Your task to perform on an android device: delete browsing data in the chrome app Image 0: 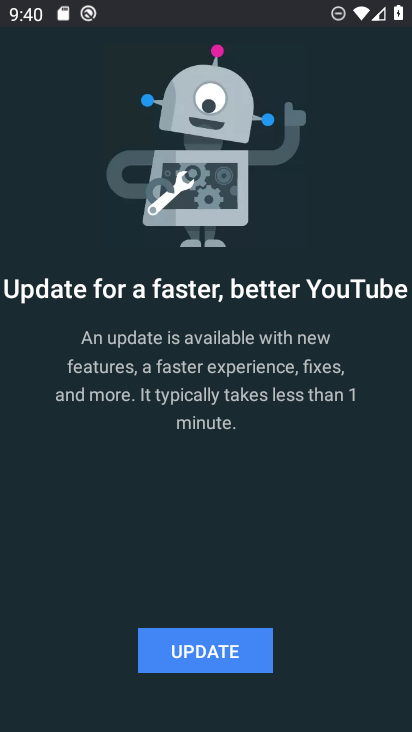
Step 0: press home button
Your task to perform on an android device: delete browsing data in the chrome app Image 1: 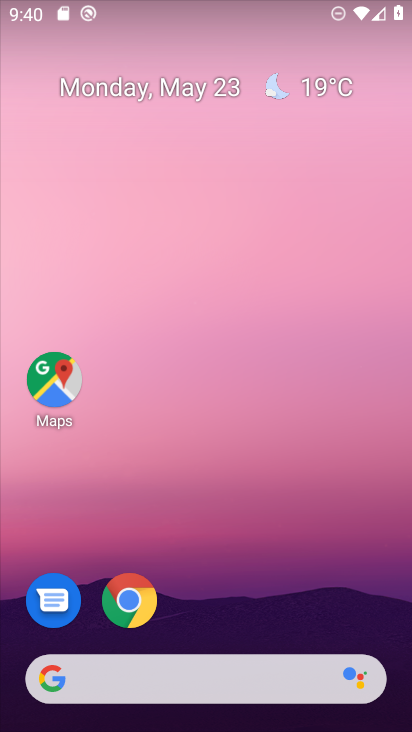
Step 1: click (127, 601)
Your task to perform on an android device: delete browsing data in the chrome app Image 2: 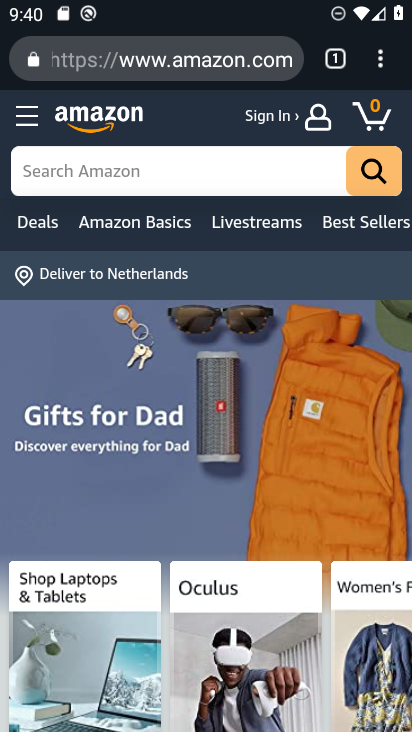
Step 2: click (384, 56)
Your task to perform on an android device: delete browsing data in the chrome app Image 3: 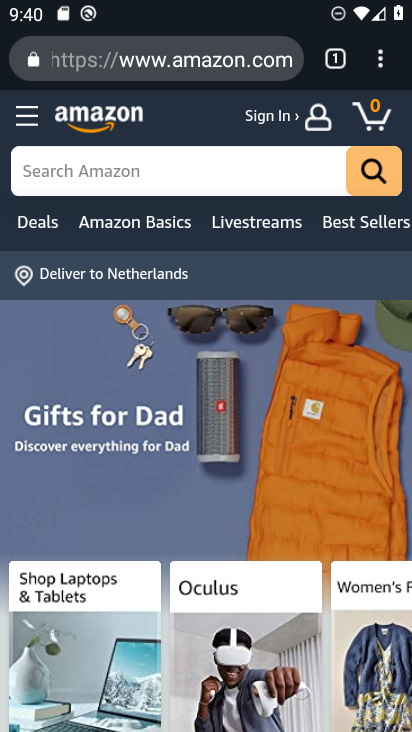
Step 3: click (374, 67)
Your task to perform on an android device: delete browsing data in the chrome app Image 4: 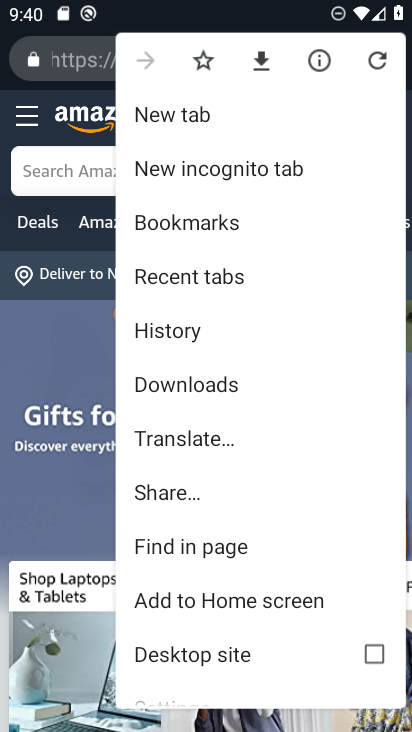
Step 4: drag from (206, 678) to (307, 90)
Your task to perform on an android device: delete browsing data in the chrome app Image 5: 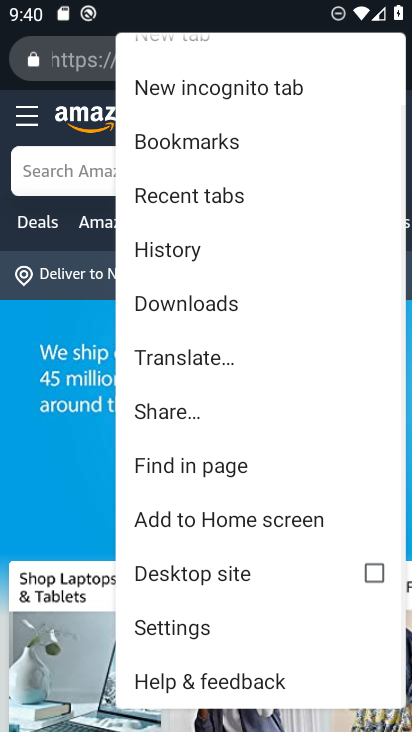
Step 5: click (176, 627)
Your task to perform on an android device: delete browsing data in the chrome app Image 6: 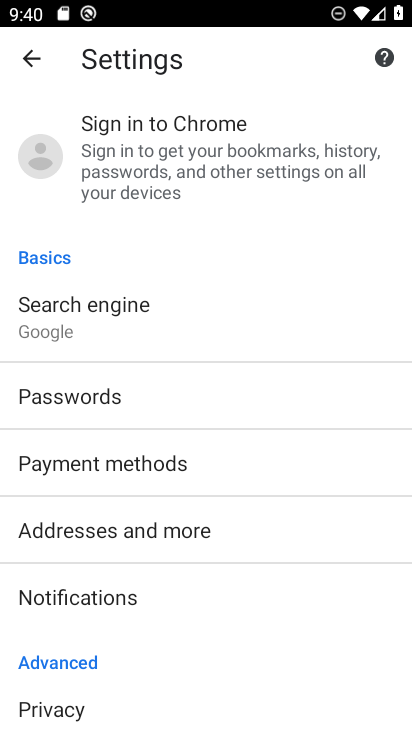
Step 6: drag from (0, 581) to (179, 229)
Your task to perform on an android device: delete browsing data in the chrome app Image 7: 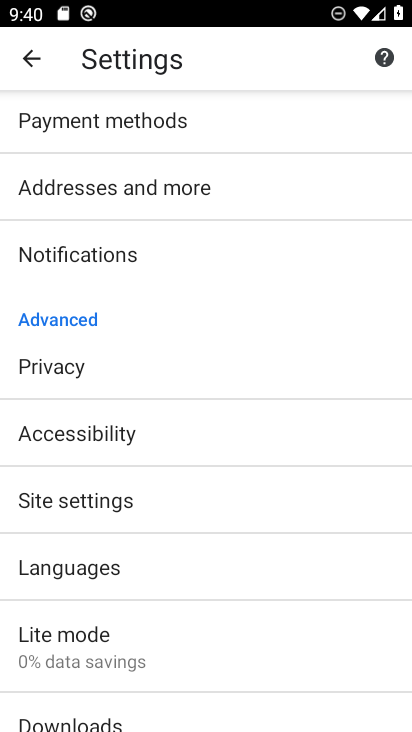
Step 7: drag from (255, 185) to (284, 725)
Your task to perform on an android device: delete browsing data in the chrome app Image 8: 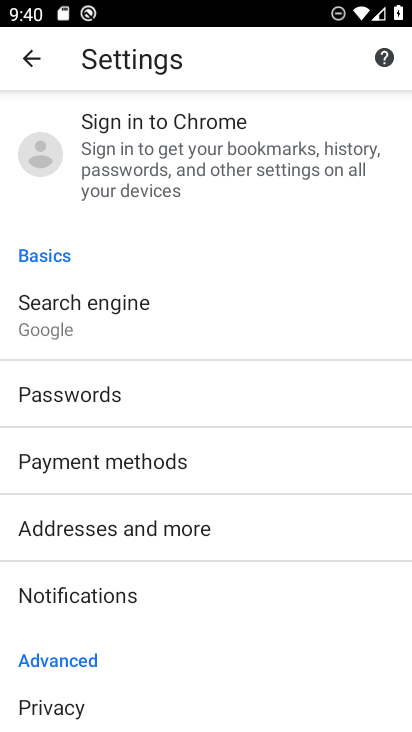
Step 8: press back button
Your task to perform on an android device: delete browsing data in the chrome app Image 9: 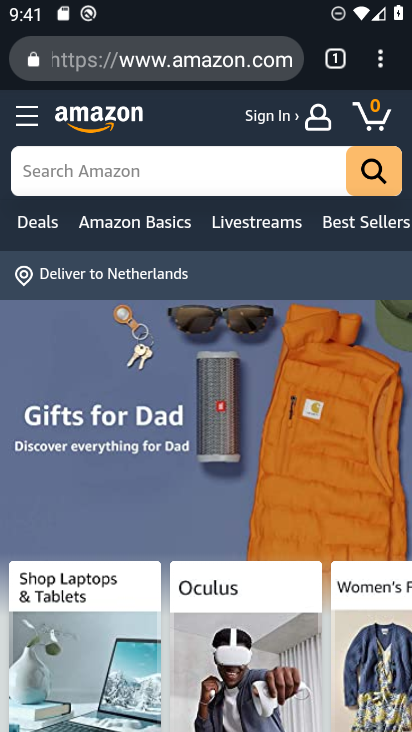
Step 9: click (371, 71)
Your task to perform on an android device: delete browsing data in the chrome app Image 10: 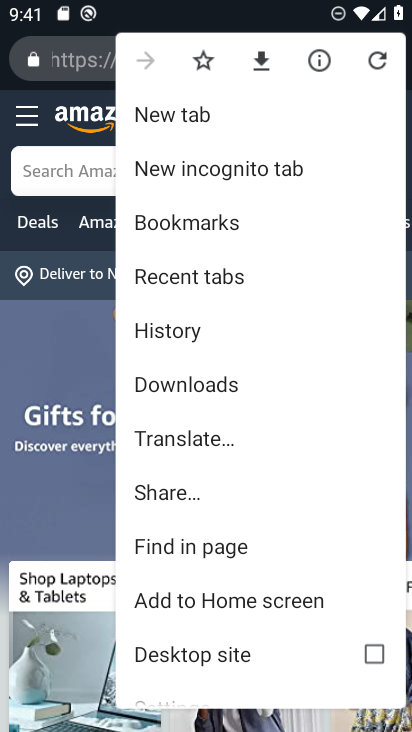
Step 10: click (153, 333)
Your task to perform on an android device: delete browsing data in the chrome app Image 11: 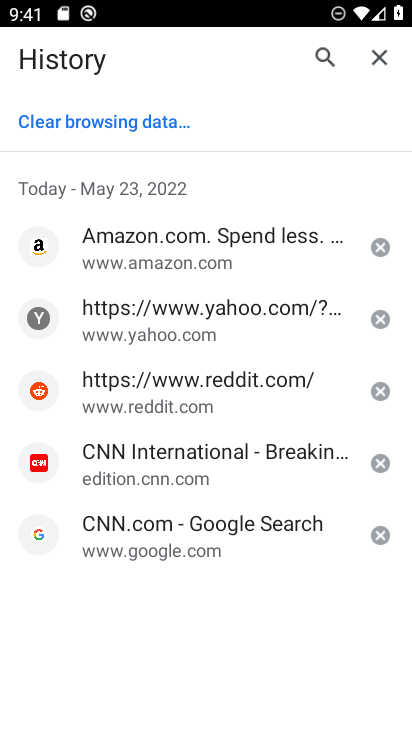
Step 11: click (140, 121)
Your task to perform on an android device: delete browsing data in the chrome app Image 12: 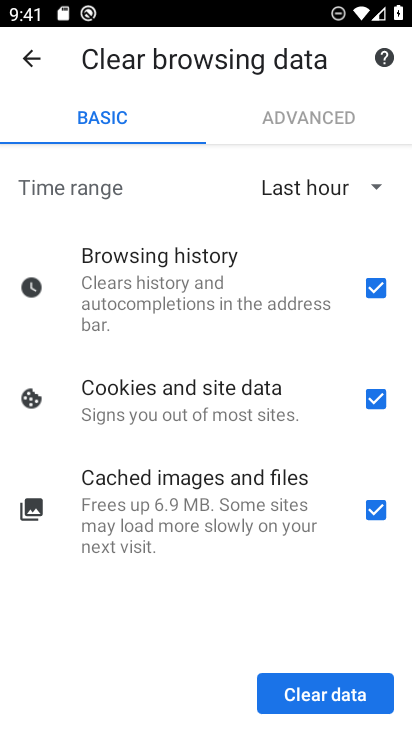
Step 12: click (315, 695)
Your task to perform on an android device: delete browsing data in the chrome app Image 13: 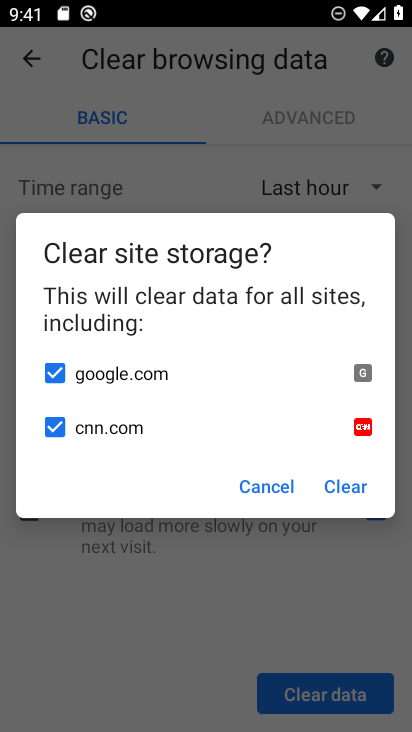
Step 13: click (339, 490)
Your task to perform on an android device: delete browsing data in the chrome app Image 14: 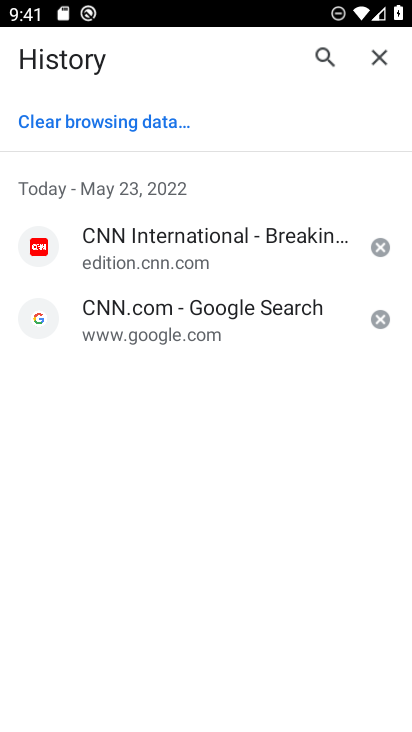
Step 14: task complete